Your task to perform on an android device: Open a new incognito tab in Chrome Image 0: 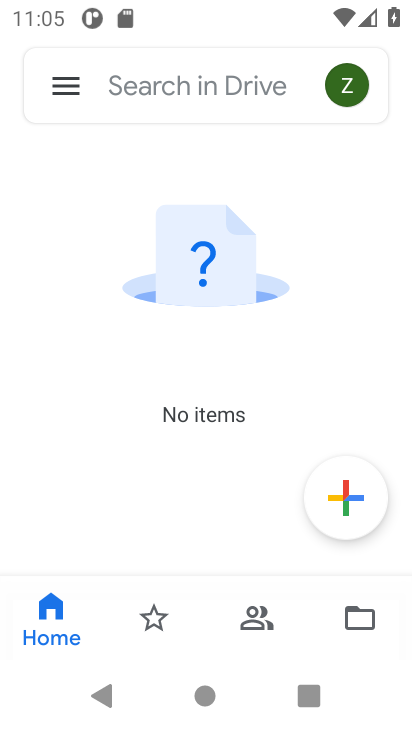
Step 0: press home button
Your task to perform on an android device: Open a new incognito tab in Chrome Image 1: 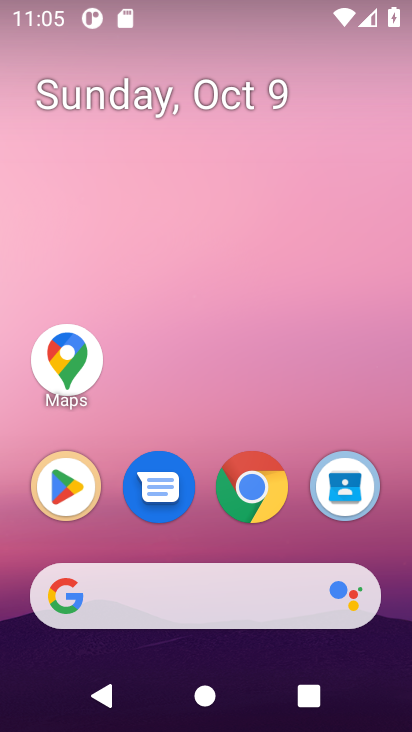
Step 1: click (253, 480)
Your task to perform on an android device: Open a new incognito tab in Chrome Image 2: 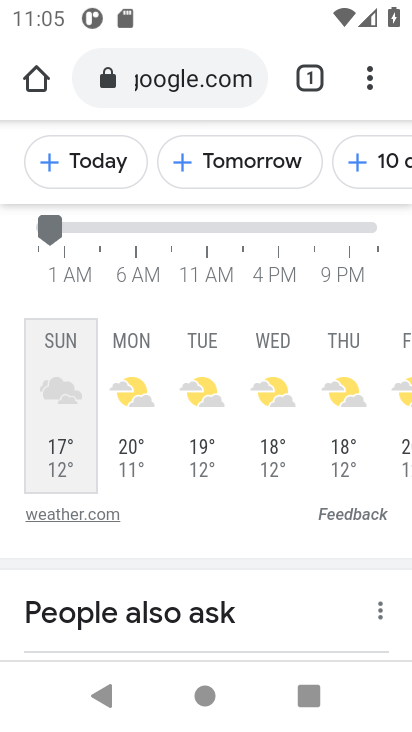
Step 2: click (380, 68)
Your task to perform on an android device: Open a new incognito tab in Chrome Image 3: 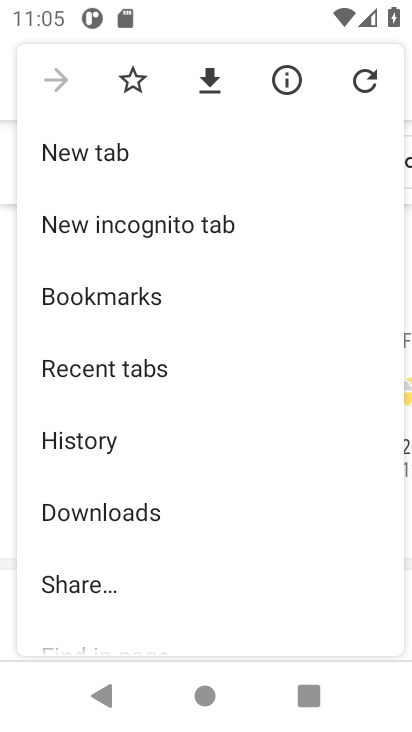
Step 3: click (100, 233)
Your task to perform on an android device: Open a new incognito tab in Chrome Image 4: 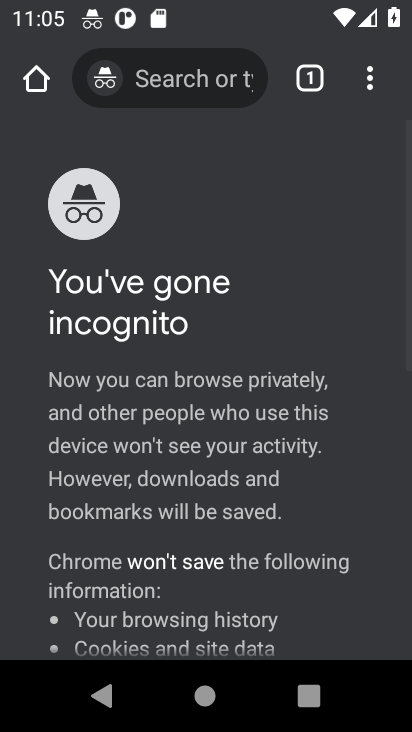
Step 4: task complete